Your task to perform on an android device: Is it going to rain this weekend? Image 0: 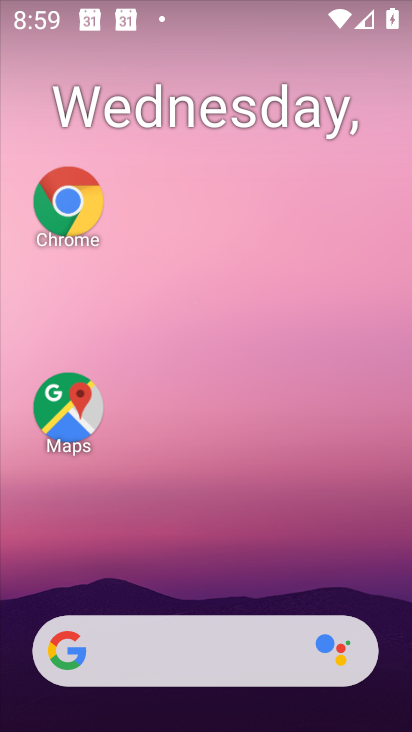
Step 0: click (202, 633)
Your task to perform on an android device: Is it going to rain this weekend? Image 1: 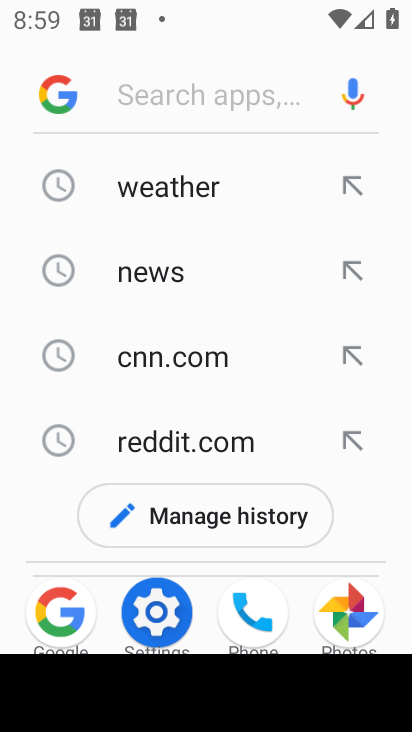
Step 1: click (135, 193)
Your task to perform on an android device: Is it going to rain this weekend? Image 2: 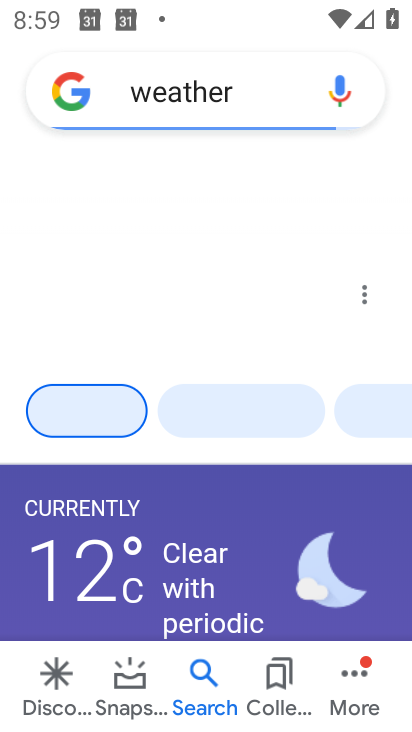
Step 2: task complete